Your task to perform on an android device: turn off notifications in google photos Image 0: 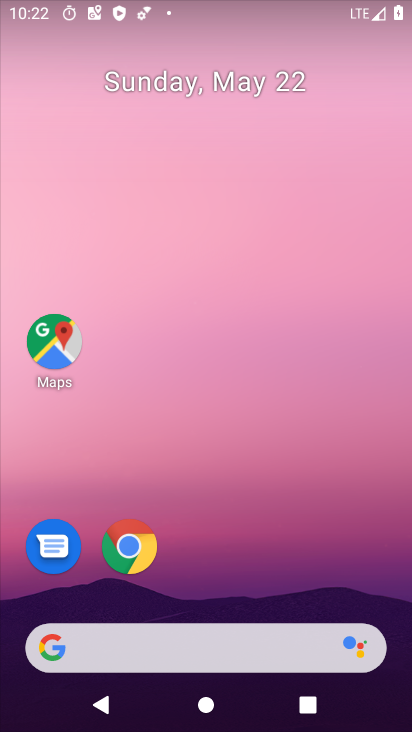
Step 0: drag from (186, 564) to (223, 286)
Your task to perform on an android device: turn off notifications in google photos Image 1: 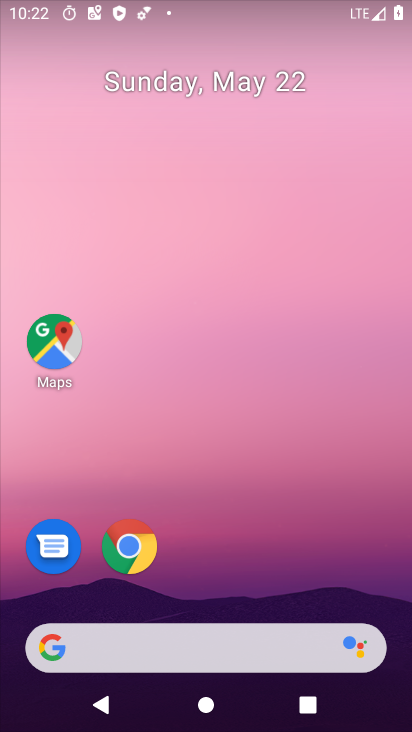
Step 1: drag from (220, 580) to (232, 242)
Your task to perform on an android device: turn off notifications in google photos Image 2: 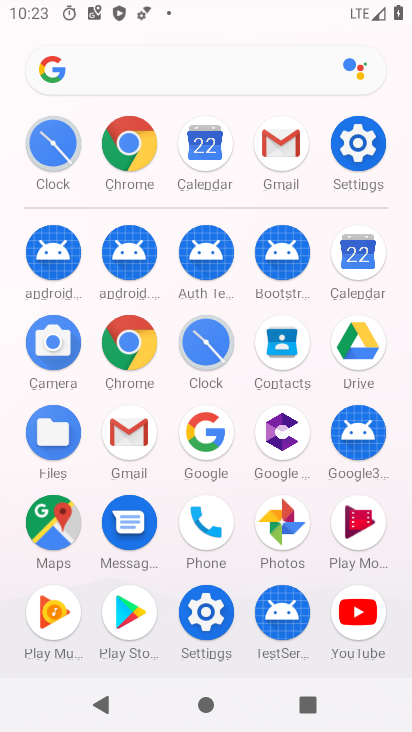
Step 2: click (288, 528)
Your task to perform on an android device: turn off notifications in google photos Image 3: 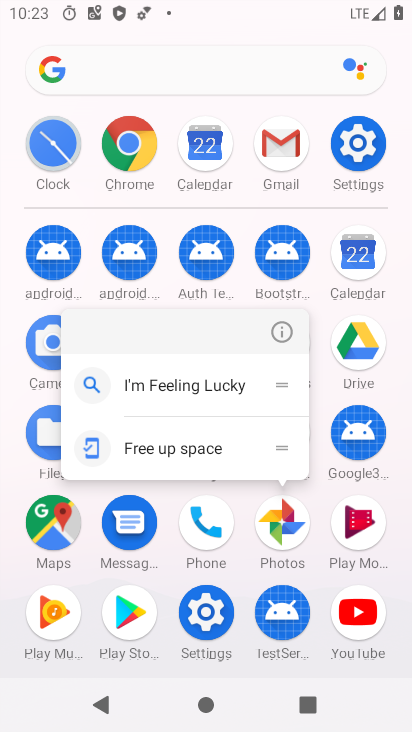
Step 3: click (278, 324)
Your task to perform on an android device: turn off notifications in google photos Image 4: 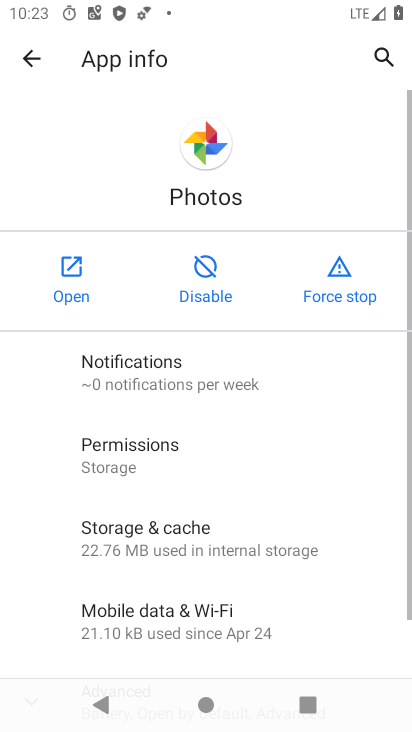
Step 4: click (42, 269)
Your task to perform on an android device: turn off notifications in google photos Image 5: 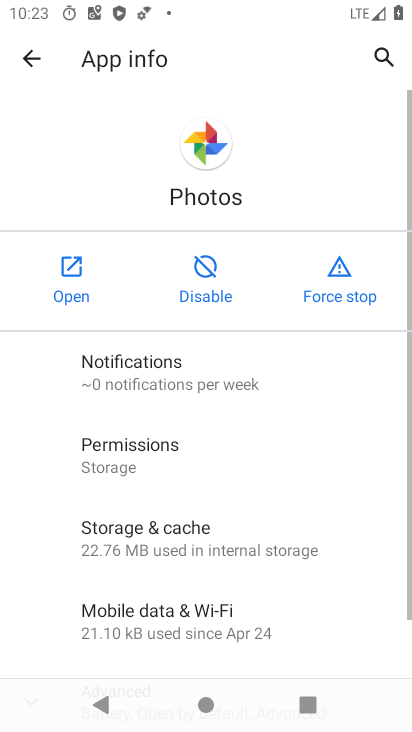
Step 5: click (43, 269)
Your task to perform on an android device: turn off notifications in google photos Image 6: 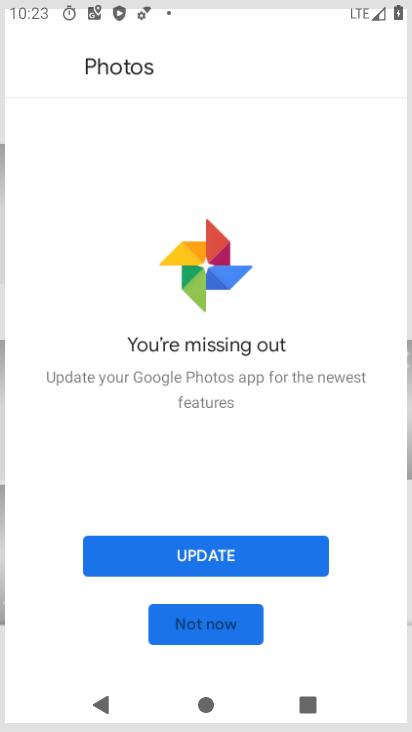
Step 6: drag from (193, 584) to (241, 133)
Your task to perform on an android device: turn off notifications in google photos Image 7: 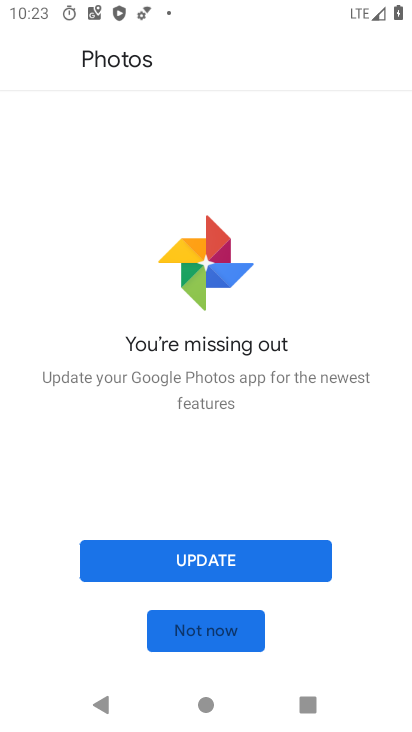
Step 7: click (193, 628)
Your task to perform on an android device: turn off notifications in google photos Image 8: 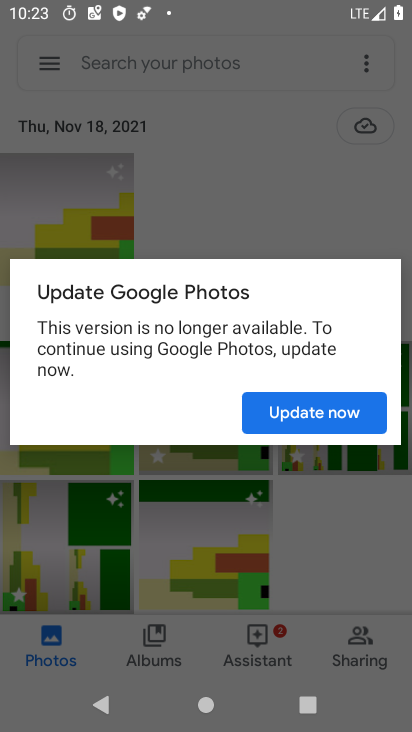
Step 8: click (294, 415)
Your task to perform on an android device: turn off notifications in google photos Image 9: 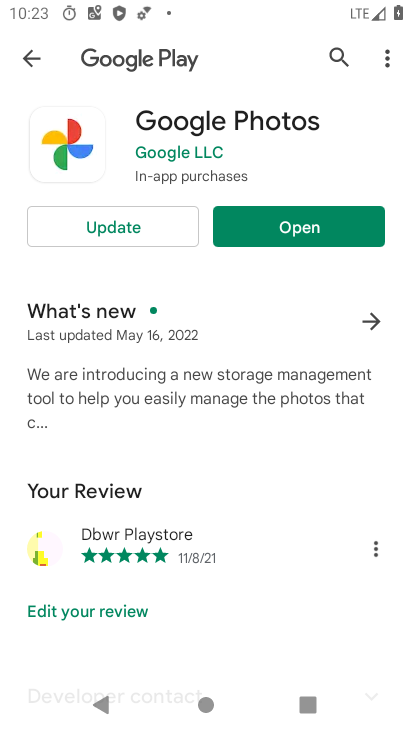
Step 9: click (70, 224)
Your task to perform on an android device: turn off notifications in google photos Image 10: 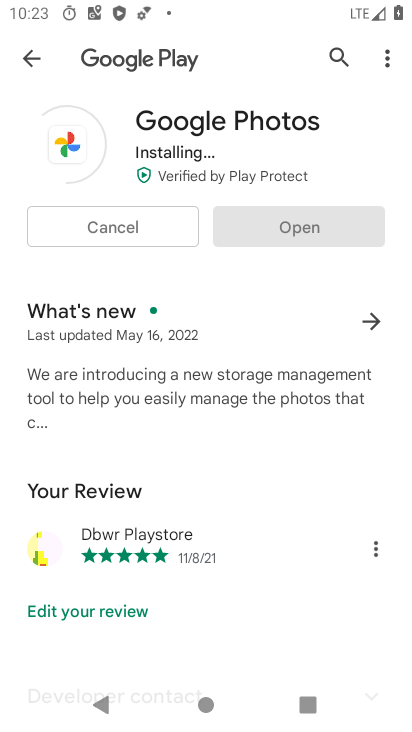
Step 10: drag from (242, 545) to (273, 184)
Your task to perform on an android device: turn off notifications in google photos Image 11: 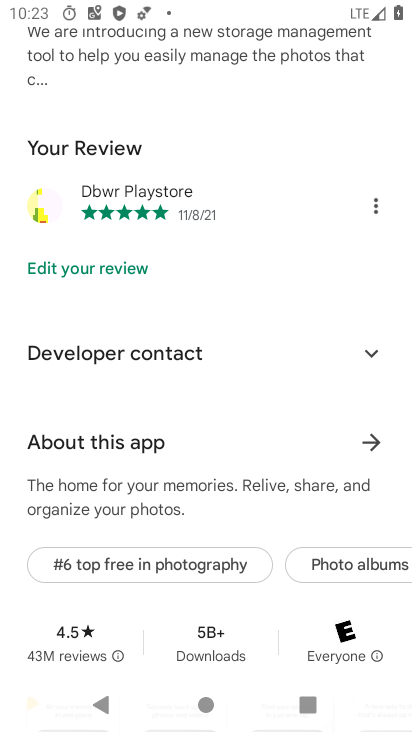
Step 11: drag from (288, 391) to (292, 98)
Your task to perform on an android device: turn off notifications in google photos Image 12: 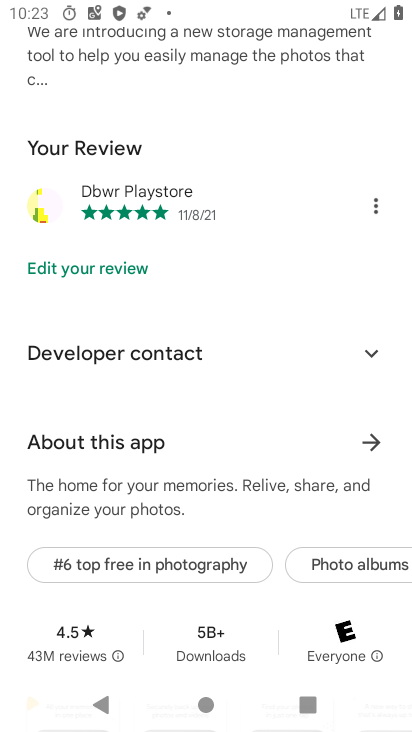
Step 12: drag from (267, 205) to (356, 730)
Your task to perform on an android device: turn off notifications in google photos Image 13: 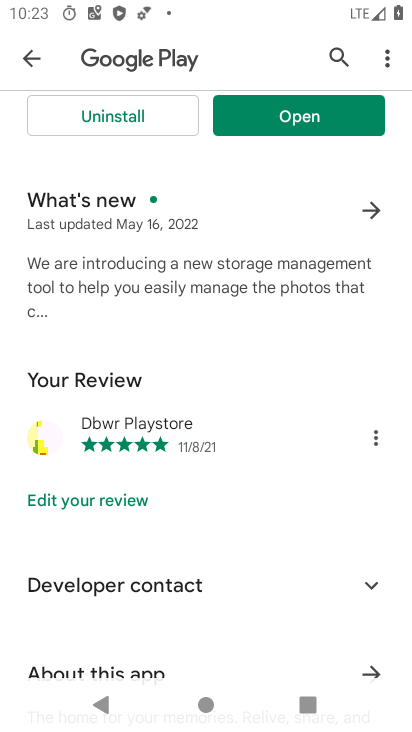
Step 13: drag from (244, 279) to (377, 717)
Your task to perform on an android device: turn off notifications in google photos Image 14: 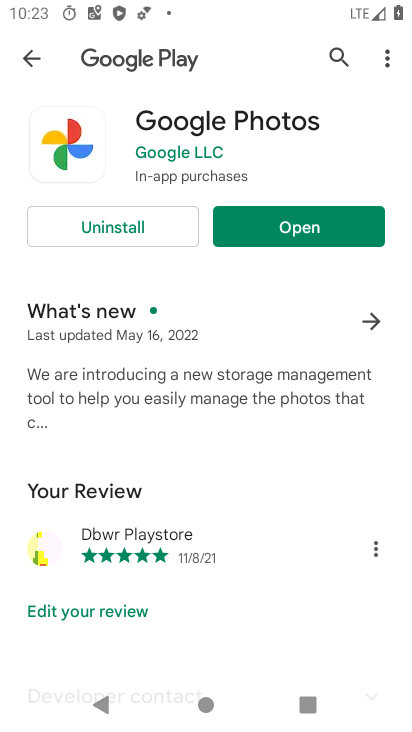
Step 14: click (284, 219)
Your task to perform on an android device: turn off notifications in google photos Image 15: 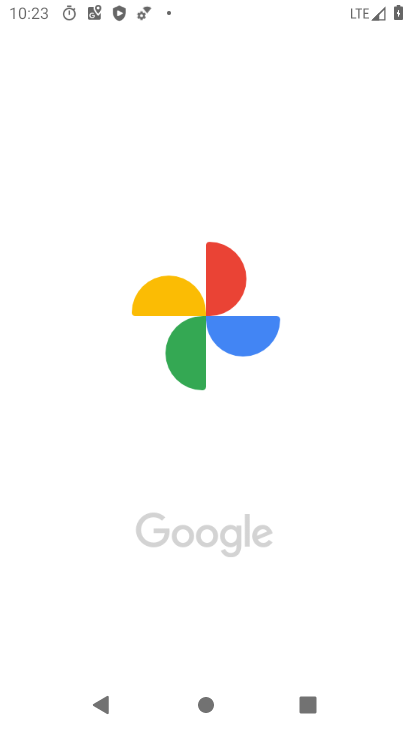
Step 15: drag from (271, 588) to (285, 158)
Your task to perform on an android device: turn off notifications in google photos Image 16: 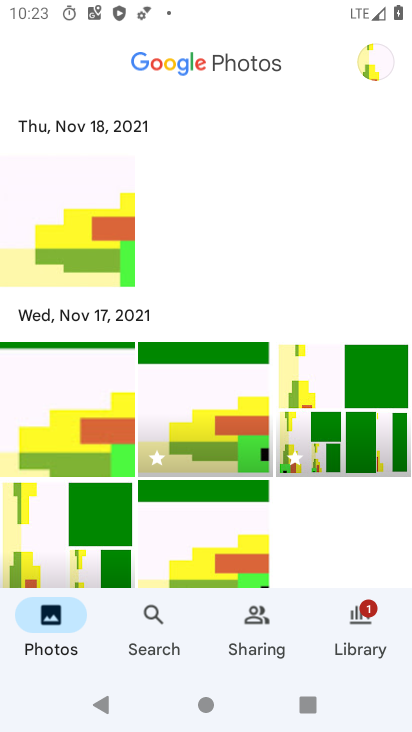
Step 16: click (345, 636)
Your task to perform on an android device: turn off notifications in google photos Image 17: 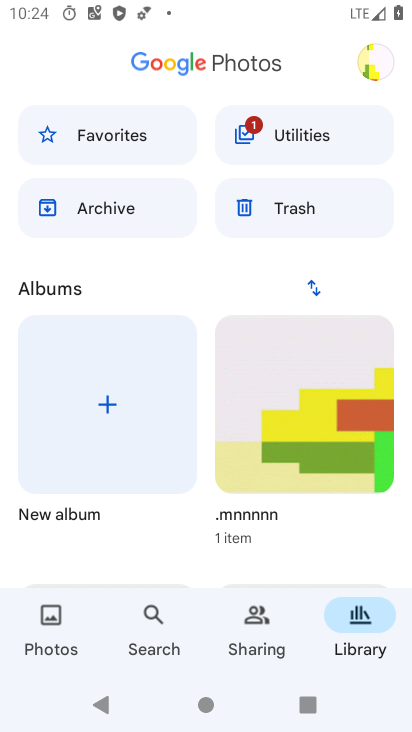
Step 17: click (370, 49)
Your task to perform on an android device: turn off notifications in google photos Image 18: 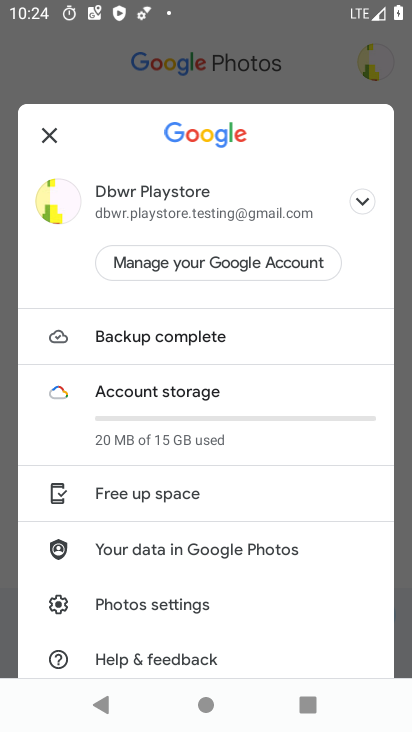
Step 18: drag from (230, 546) to (276, 292)
Your task to perform on an android device: turn off notifications in google photos Image 19: 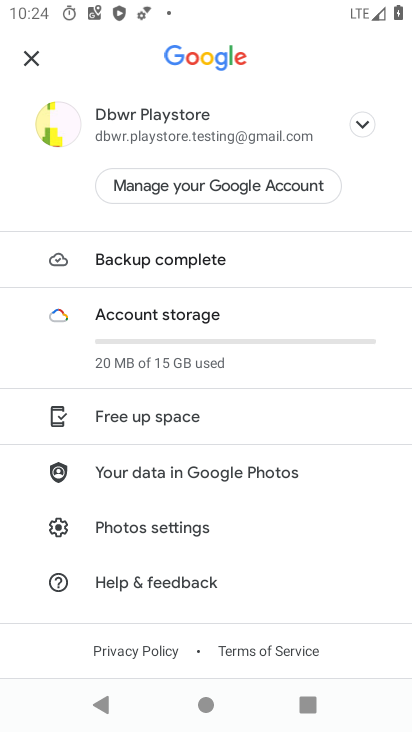
Step 19: click (140, 537)
Your task to perform on an android device: turn off notifications in google photos Image 20: 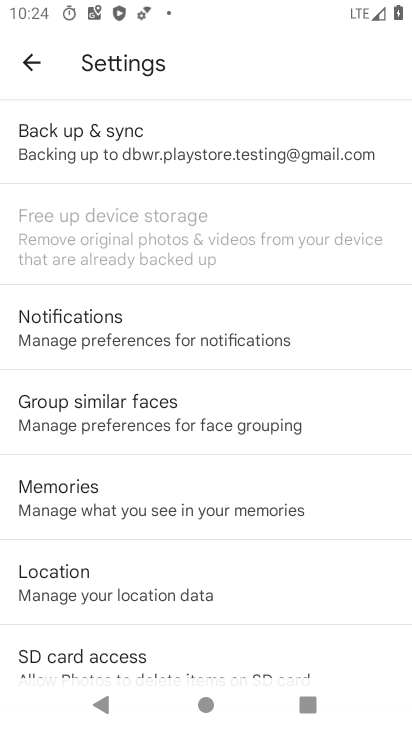
Step 20: drag from (237, 598) to (321, 216)
Your task to perform on an android device: turn off notifications in google photos Image 21: 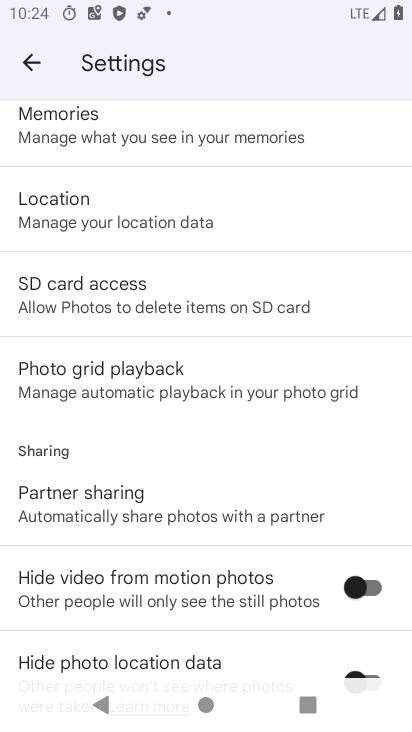
Step 21: drag from (179, 537) to (286, 120)
Your task to perform on an android device: turn off notifications in google photos Image 22: 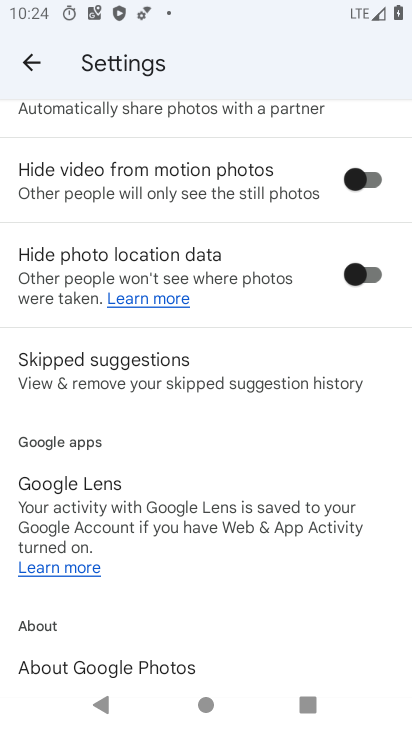
Step 22: drag from (209, 174) to (294, 722)
Your task to perform on an android device: turn off notifications in google photos Image 23: 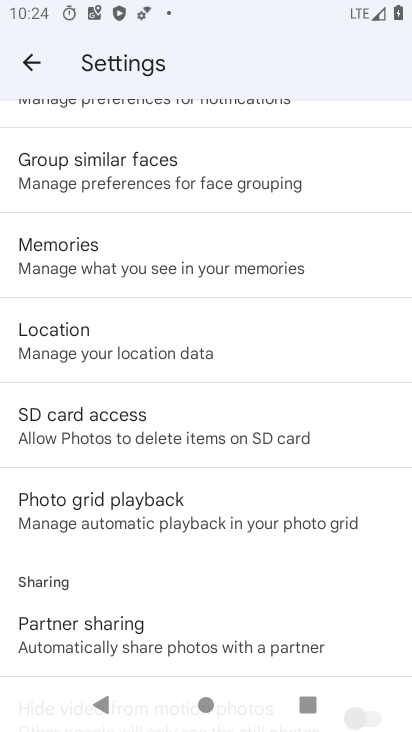
Step 23: drag from (163, 332) to (364, 724)
Your task to perform on an android device: turn off notifications in google photos Image 24: 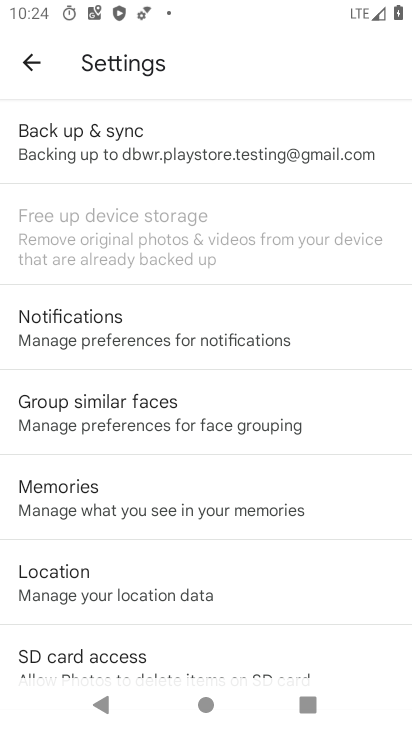
Step 24: drag from (194, 296) to (361, 731)
Your task to perform on an android device: turn off notifications in google photos Image 25: 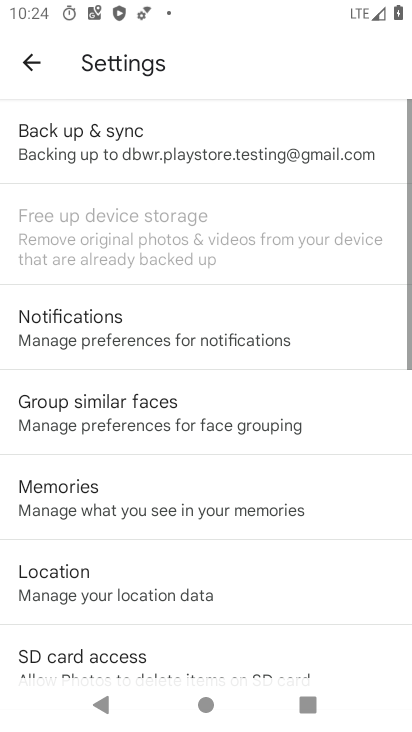
Step 25: click (88, 325)
Your task to perform on an android device: turn off notifications in google photos Image 26: 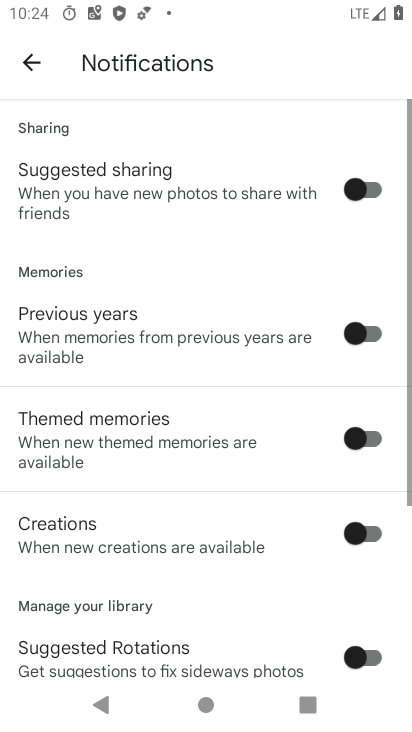
Step 26: drag from (252, 575) to (334, 196)
Your task to perform on an android device: turn off notifications in google photos Image 27: 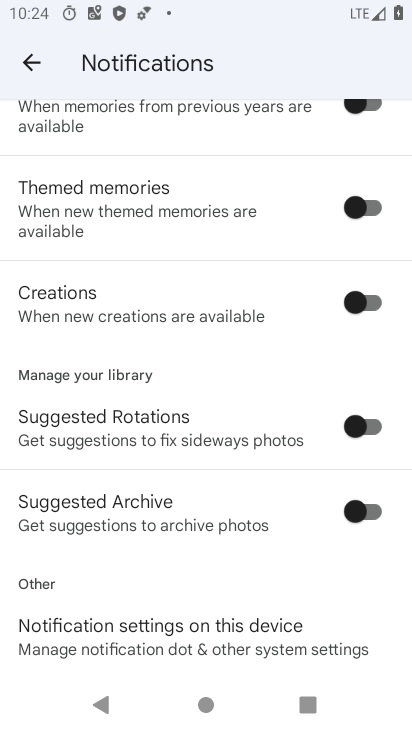
Step 27: drag from (168, 570) to (266, 145)
Your task to perform on an android device: turn off notifications in google photos Image 28: 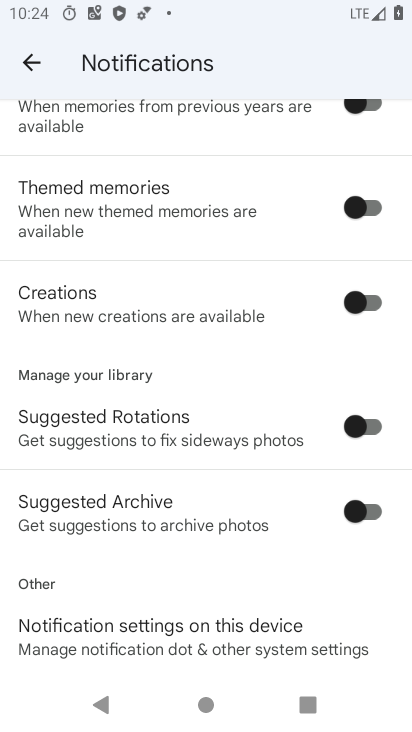
Step 28: click (159, 627)
Your task to perform on an android device: turn off notifications in google photos Image 29: 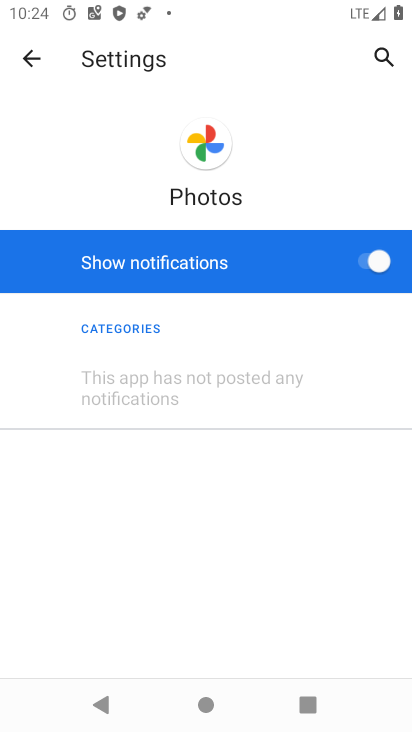
Step 29: click (383, 258)
Your task to perform on an android device: turn off notifications in google photos Image 30: 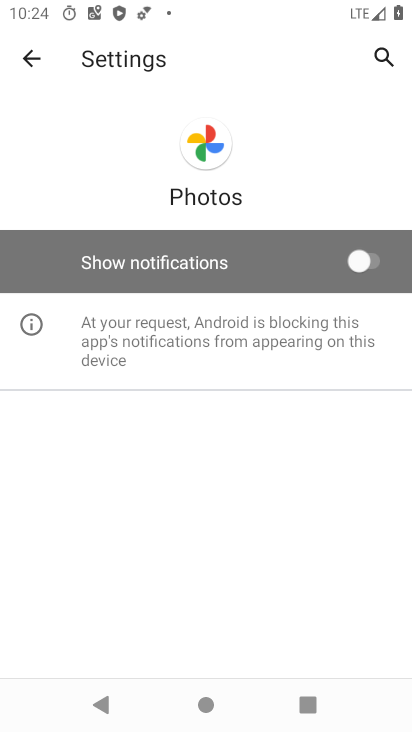
Step 30: task complete